Your task to perform on an android device: toggle translation in the chrome app Image 0: 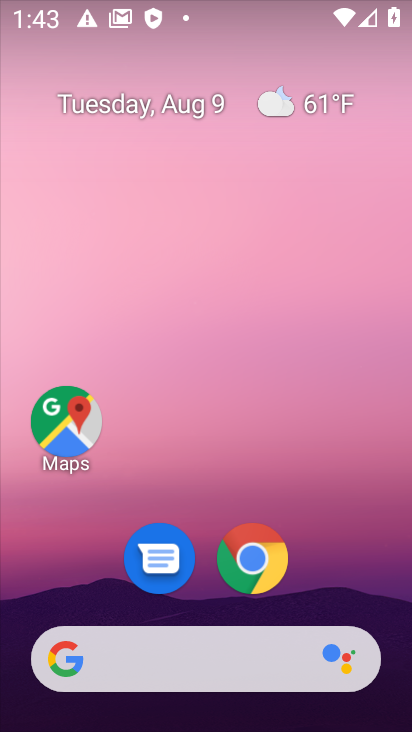
Step 0: click (254, 562)
Your task to perform on an android device: toggle translation in the chrome app Image 1: 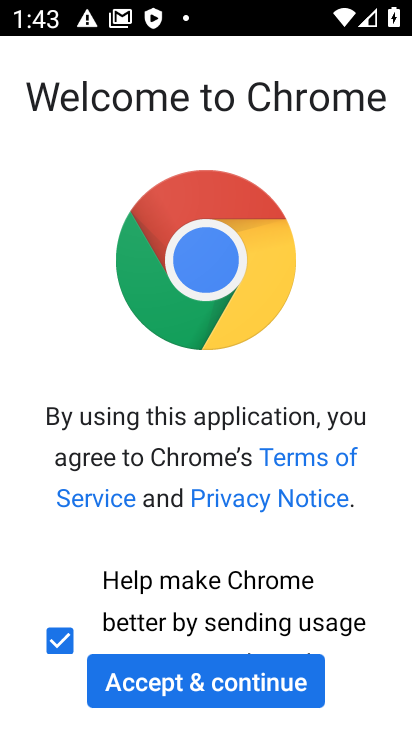
Step 1: click (169, 689)
Your task to perform on an android device: toggle translation in the chrome app Image 2: 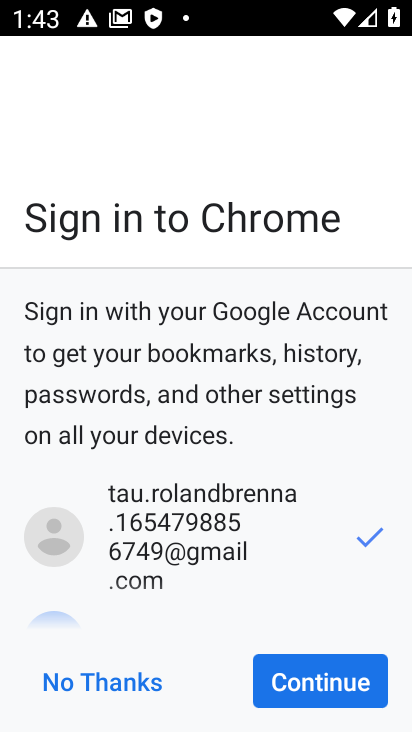
Step 2: click (310, 693)
Your task to perform on an android device: toggle translation in the chrome app Image 3: 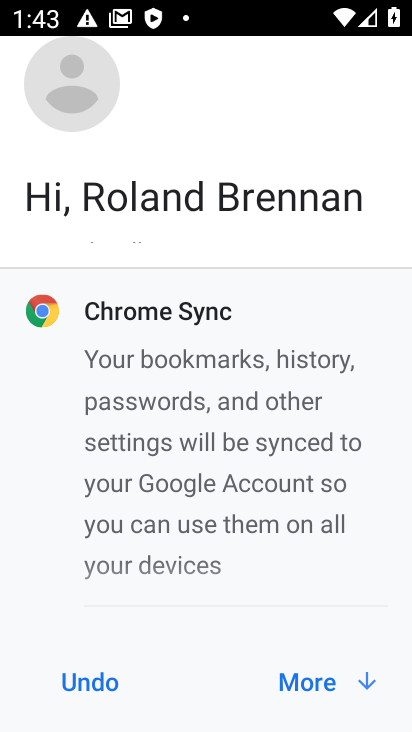
Step 3: click (305, 682)
Your task to perform on an android device: toggle translation in the chrome app Image 4: 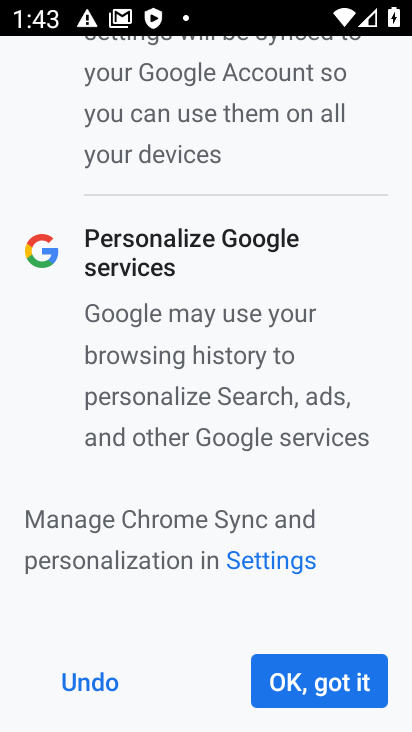
Step 4: click (305, 682)
Your task to perform on an android device: toggle translation in the chrome app Image 5: 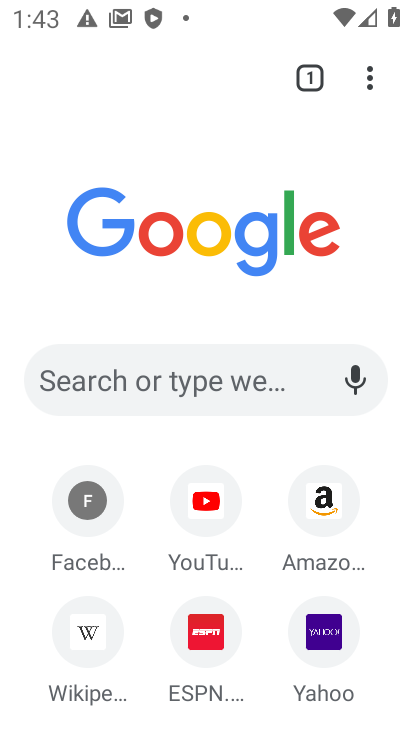
Step 5: click (368, 83)
Your task to perform on an android device: toggle translation in the chrome app Image 6: 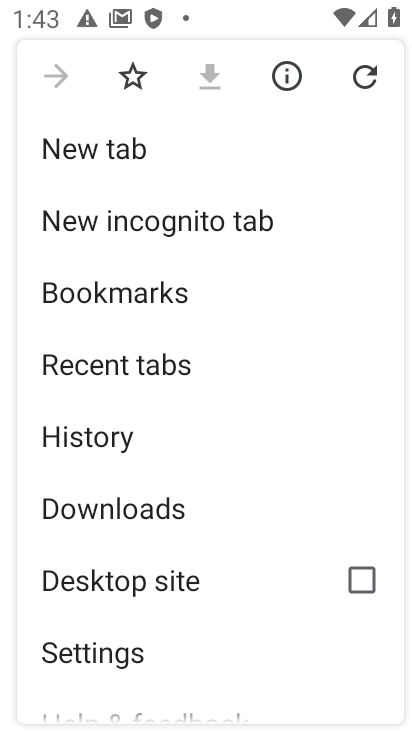
Step 6: drag from (134, 455) to (149, 140)
Your task to perform on an android device: toggle translation in the chrome app Image 7: 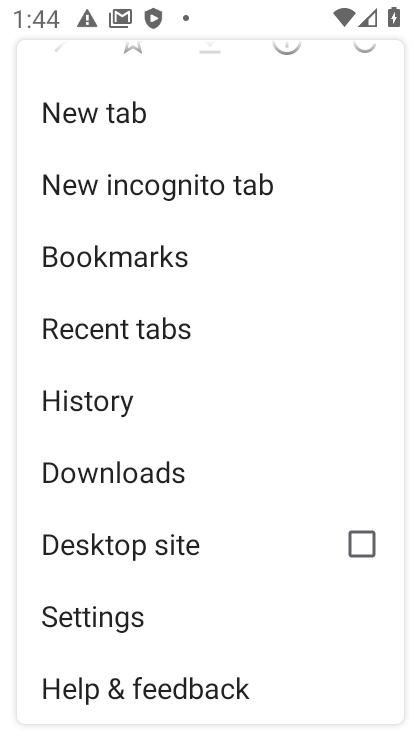
Step 7: click (80, 616)
Your task to perform on an android device: toggle translation in the chrome app Image 8: 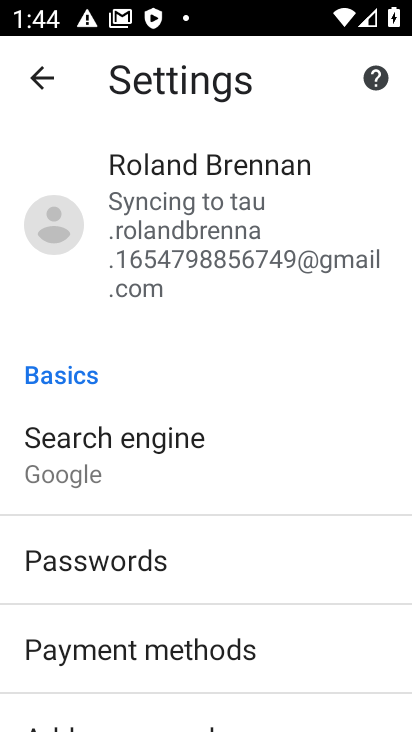
Step 8: drag from (150, 591) to (228, 20)
Your task to perform on an android device: toggle translation in the chrome app Image 9: 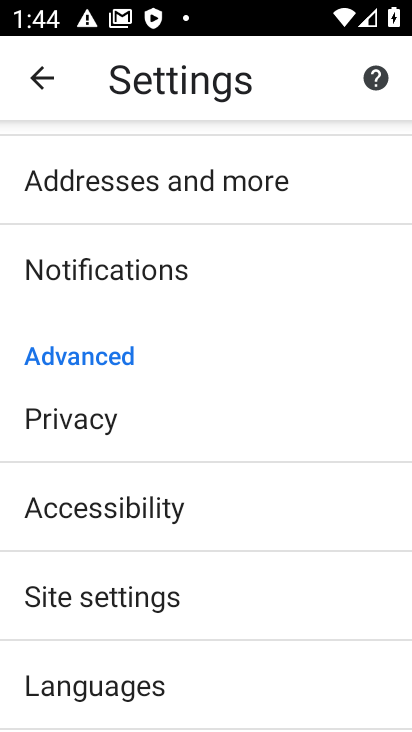
Step 9: click (134, 694)
Your task to perform on an android device: toggle translation in the chrome app Image 10: 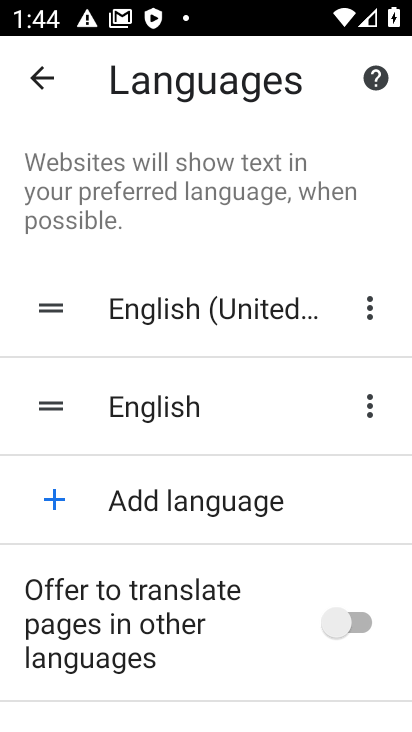
Step 10: click (356, 626)
Your task to perform on an android device: toggle translation in the chrome app Image 11: 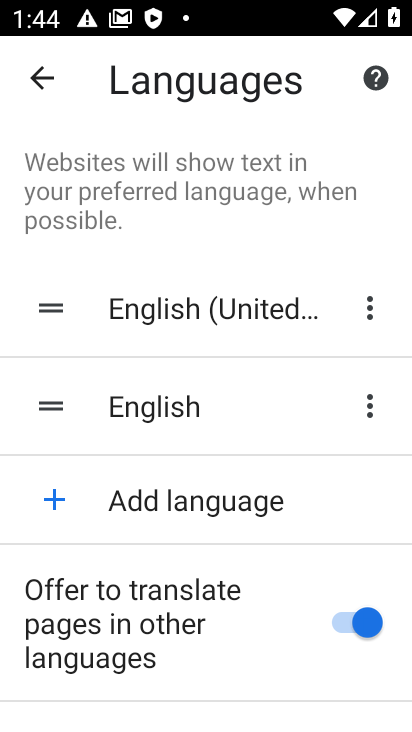
Step 11: task complete